Your task to perform on an android device: set default search engine in the chrome app Image 0: 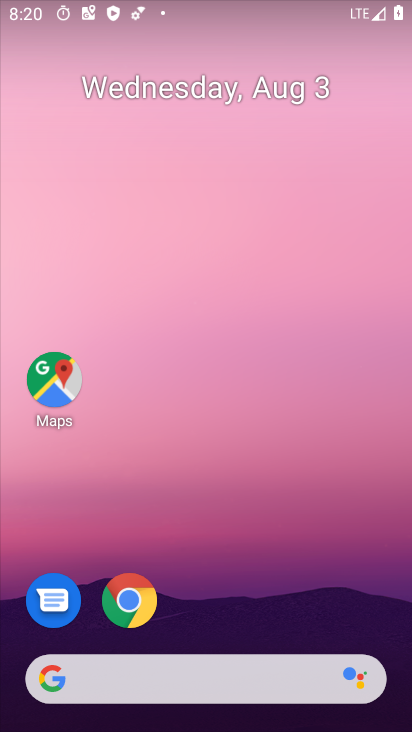
Step 0: click (136, 598)
Your task to perform on an android device: set default search engine in the chrome app Image 1: 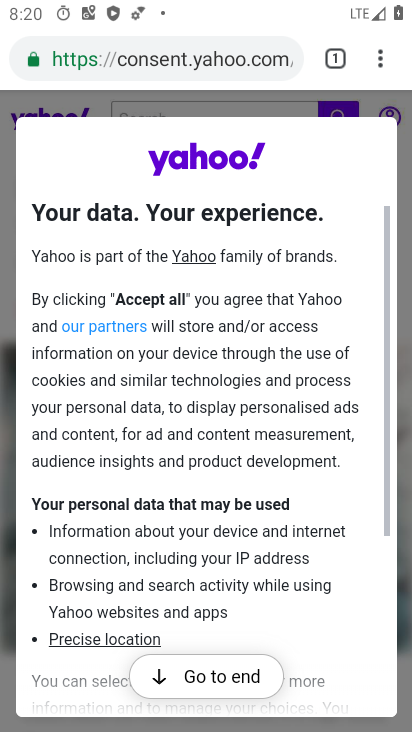
Step 1: click (378, 63)
Your task to perform on an android device: set default search engine in the chrome app Image 2: 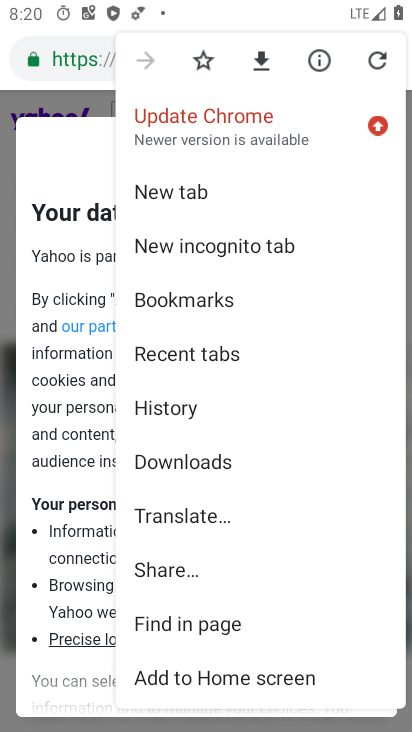
Step 2: drag from (182, 615) to (210, 209)
Your task to perform on an android device: set default search engine in the chrome app Image 3: 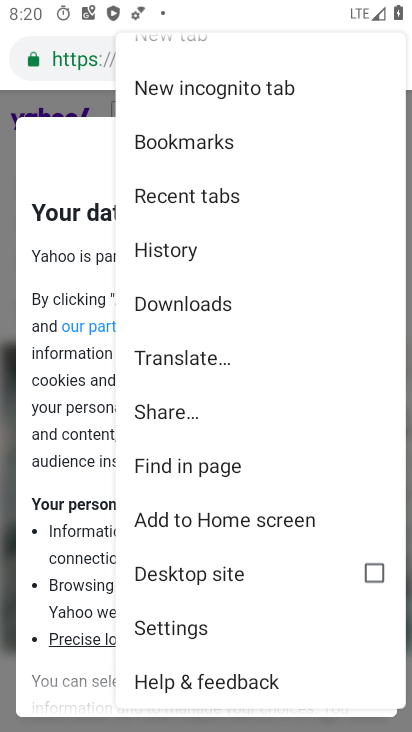
Step 3: click (184, 627)
Your task to perform on an android device: set default search engine in the chrome app Image 4: 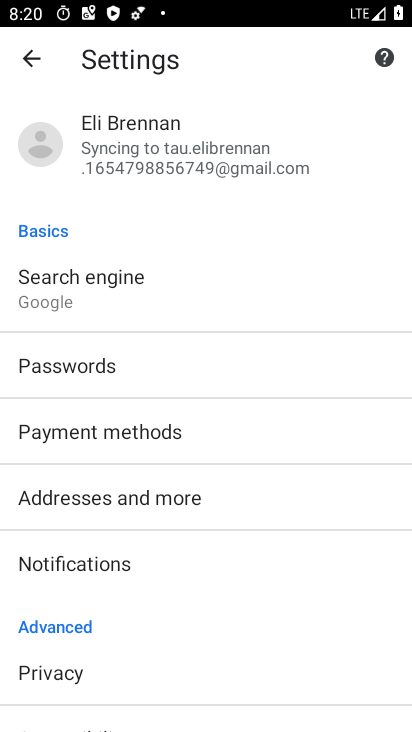
Step 4: click (113, 297)
Your task to perform on an android device: set default search engine in the chrome app Image 5: 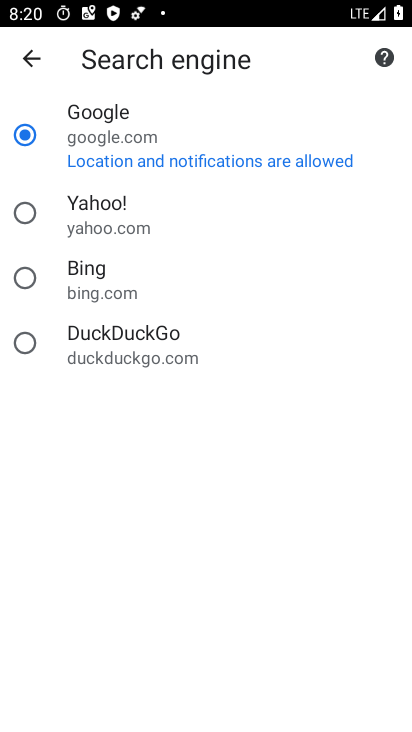
Step 5: click (131, 160)
Your task to perform on an android device: set default search engine in the chrome app Image 6: 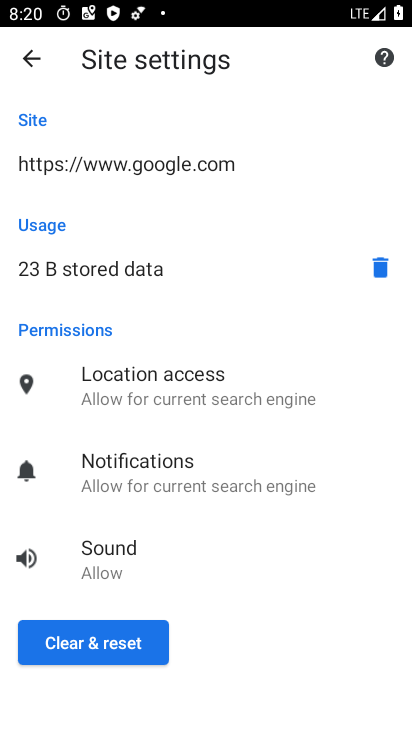
Step 6: click (98, 656)
Your task to perform on an android device: set default search engine in the chrome app Image 7: 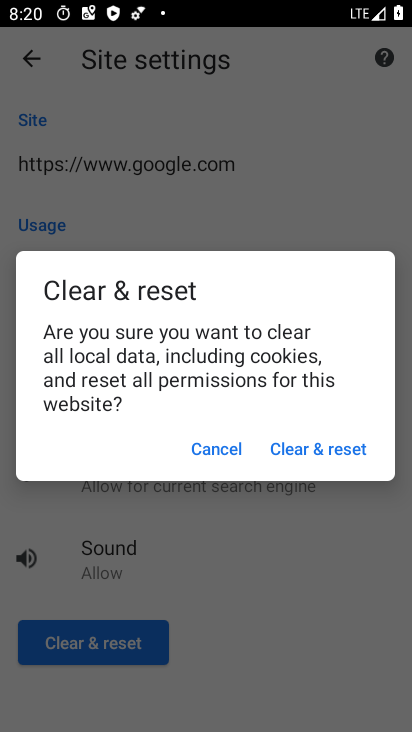
Step 7: click (343, 450)
Your task to perform on an android device: set default search engine in the chrome app Image 8: 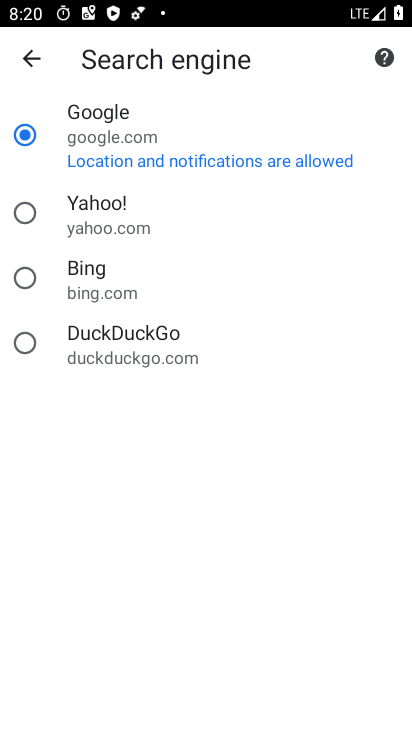
Step 8: task complete